Your task to perform on an android device: Go to internet settings Image 0: 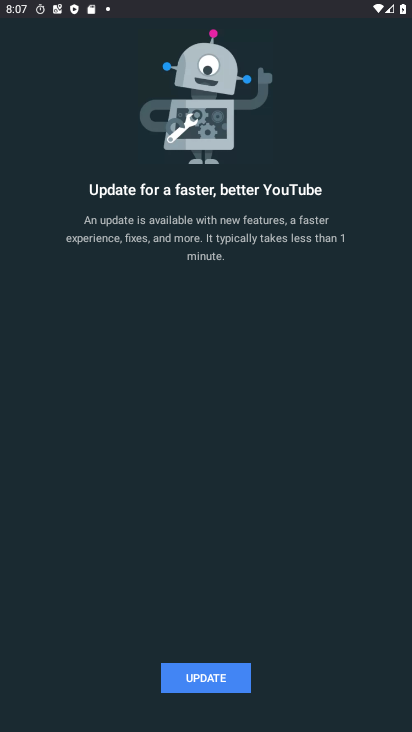
Step 0: press home button
Your task to perform on an android device: Go to internet settings Image 1: 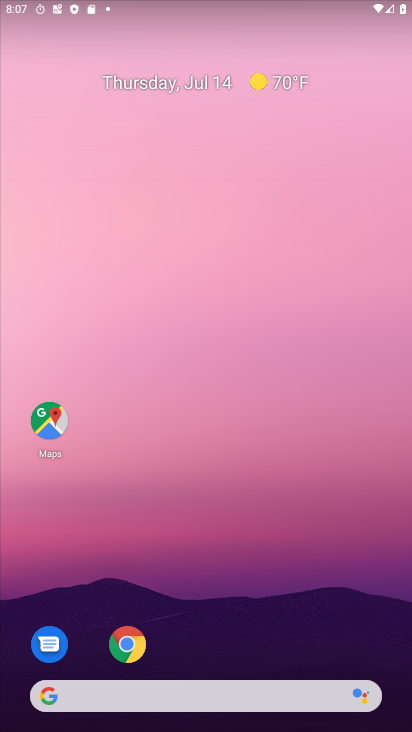
Step 1: drag from (233, 703) to (285, 257)
Your task to perform on an android device: Go to internet settings Image 2: 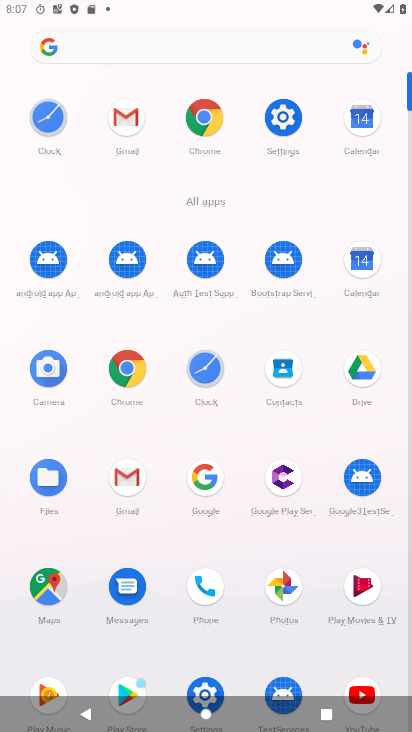
Step 2: click (286, 111)
Your task to perform on an android device: Go to internet settings Image 3: 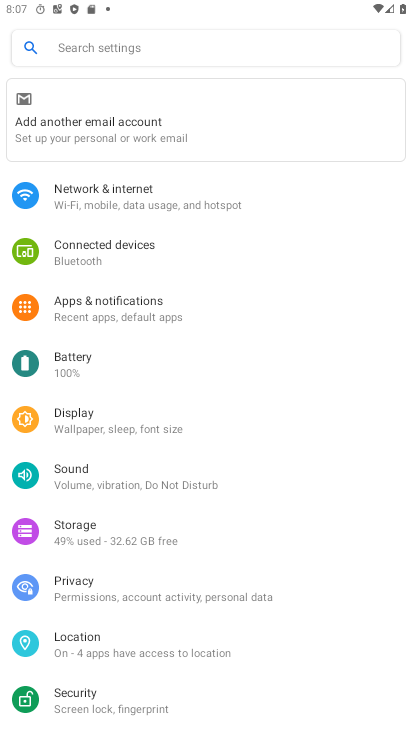
Step 3: click (164, 203)
Your task to perform on an android device: Go to internet settings Image 4: 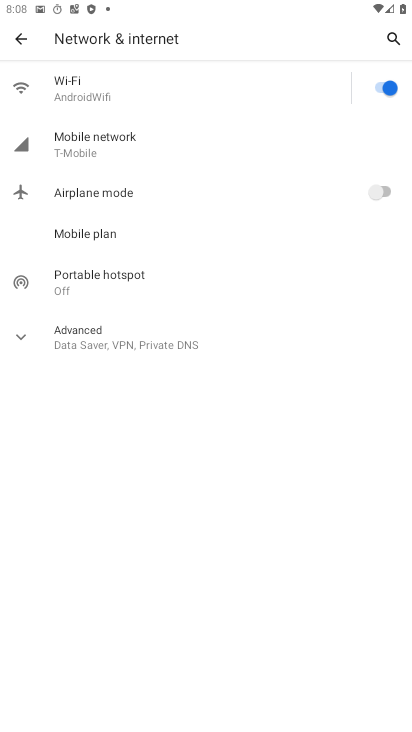
Step 4: task complete